Your task to perform on an android device: show emergency info Image 0: 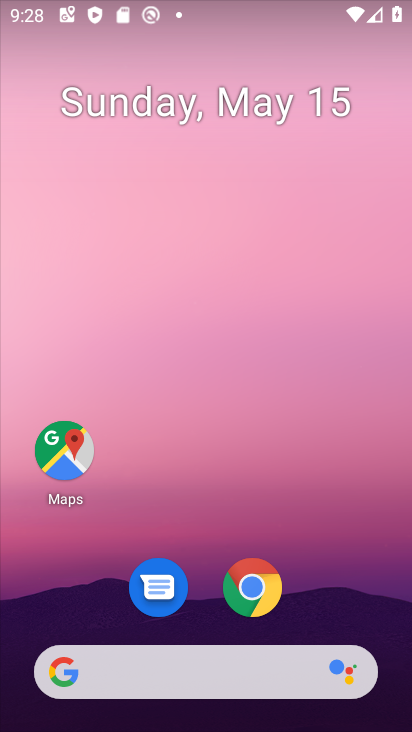
Step 0: drag from (393, 635) to (313, 2)
Your task to perform on an android device: show emergency info Image 1: 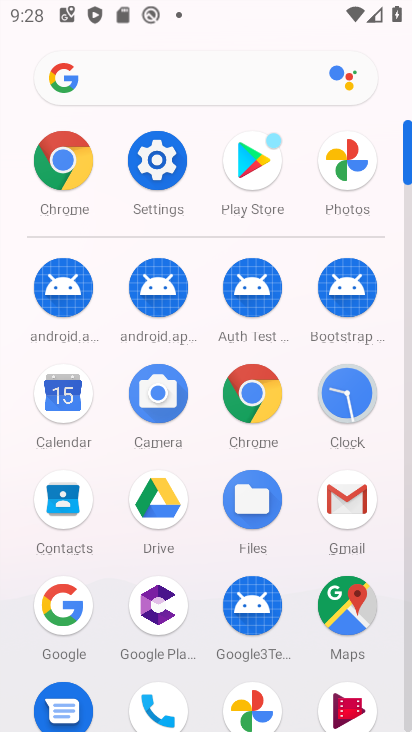
Step 1: click (153, 123)
Your task to perform on an android device: show emergency info Image 2: 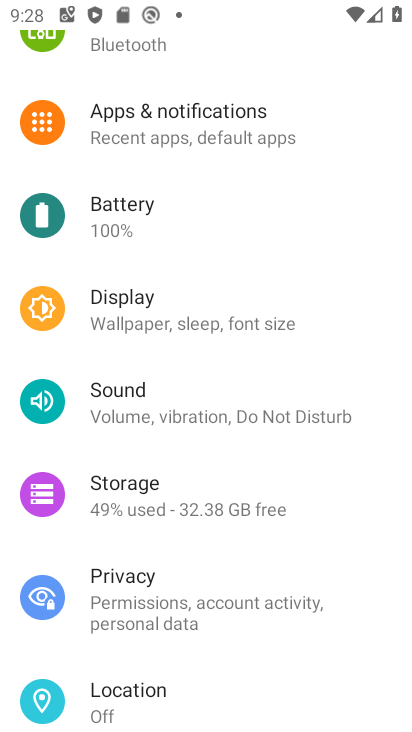
Step 2: drag from (227, 625) to (253, 200)
Your task to perform on an android device: show emergency info Image 3: 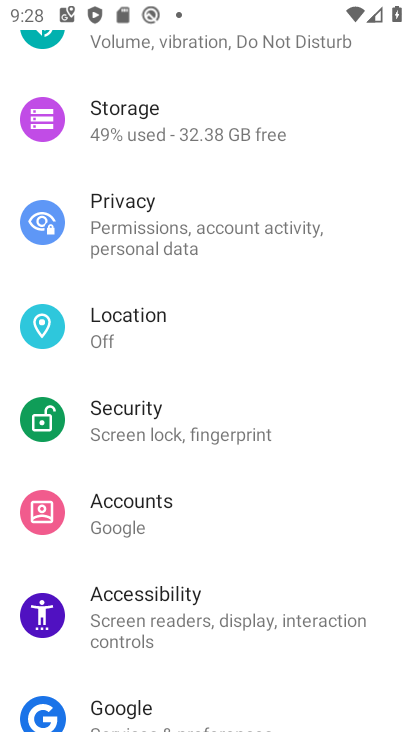
Step 3: drag from (190, 641) to (218, 111)
Your task to perform on an android device: show emergency info Image 4: 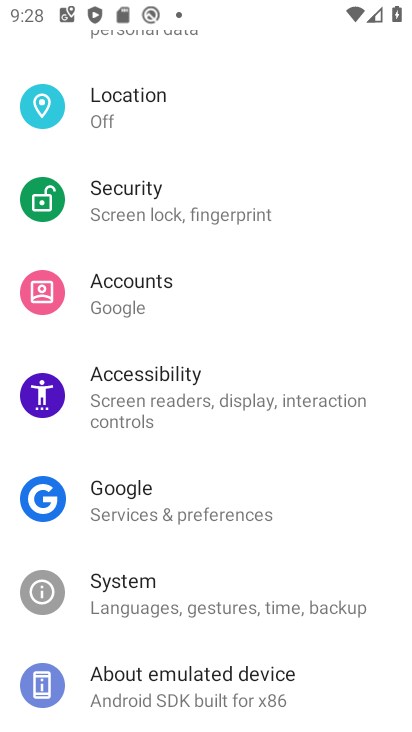
Step 4: click (220, 697)
Your task to perform on an android device: show emergency info Image 5: 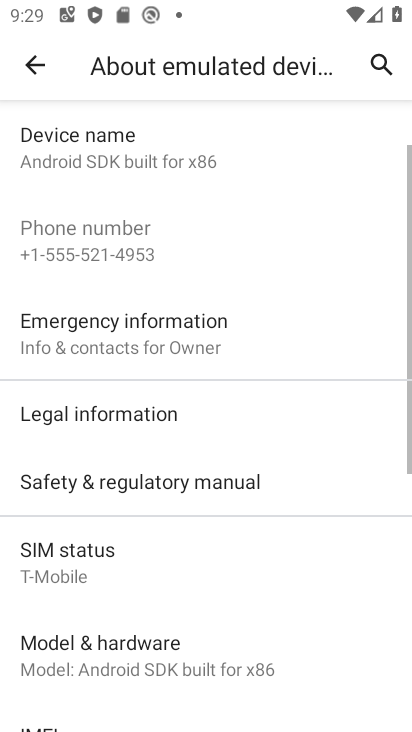
Step 5: click (187, 358)
Your task to perform on an android device: show emergency info Image 6: 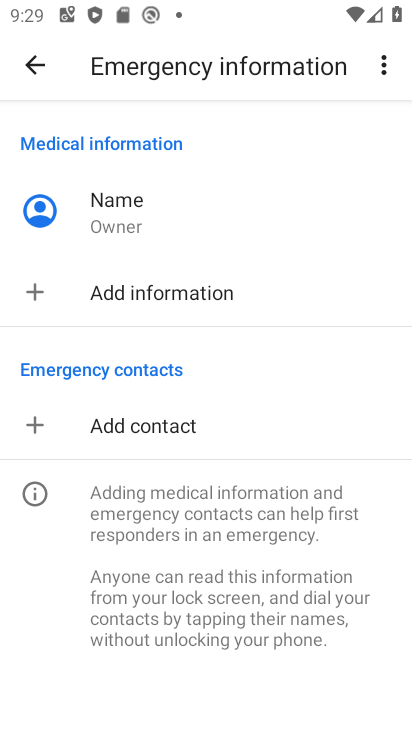
Step 6: task complete